Your task to perform on an android device: open chrome and create a bookmark for the current page Image 0: 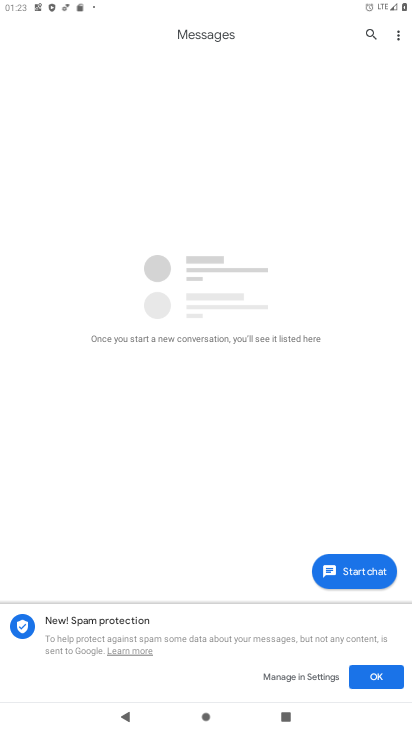
Step 0: press home button
Your task to perform on an android device: open chrome and create a bookmark for the current page Image 1: 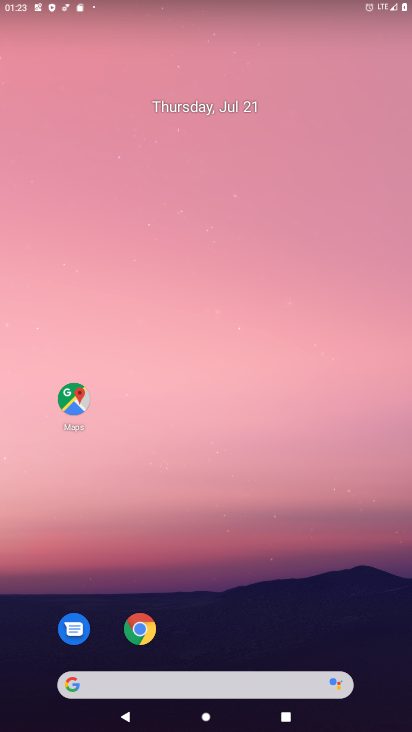
Step 1: drag from (262, 618) to (236, 26)
Your task to perform on an android device: open chrome and create a bookmark for the current page Image 2: 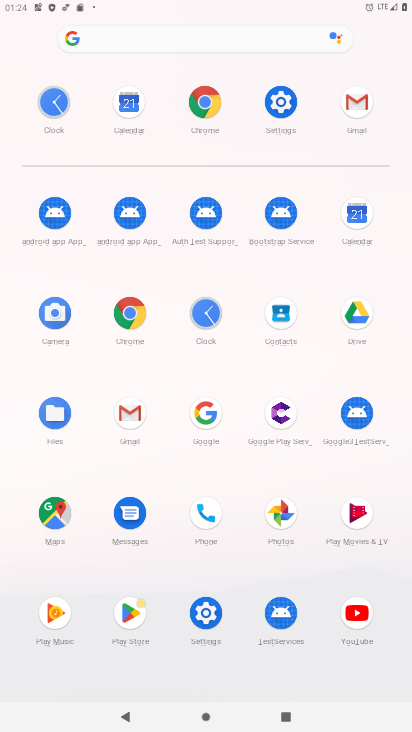
Step 2: click (204, 98)
Your task to perform on an android device: open chrome and create a bookmark for the current page Image 3: 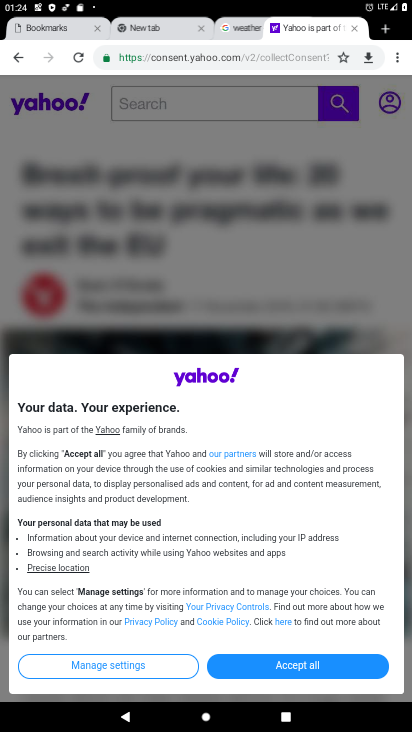
Step 3: drag from (398, 50) to (147, 52)
Your task to perform on an android device: open chrome and create a bookmark for the current page Image 4: 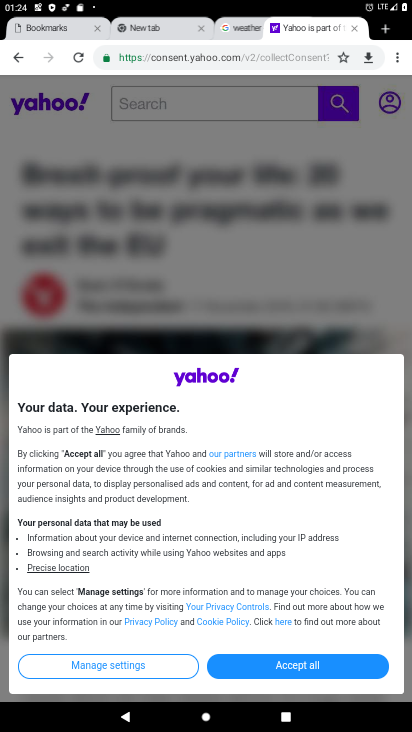
Step 4: click (345, 53)
Your task to perform on an android device: open chrome and create a bookmark for the current page Image 5: 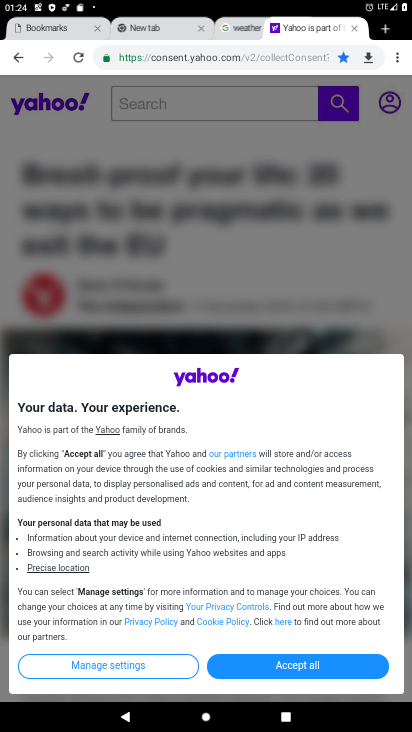
Step 5: task complete